Your task to perform on an android device: What's the weather going to be tomorrow? Image 0: 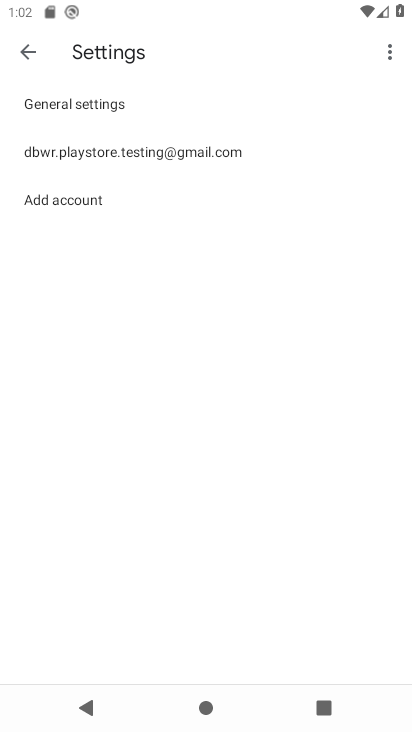
Step 0: press home button
Your task to perform on an android device: What's the weather going to be tomorrow? Image 1: 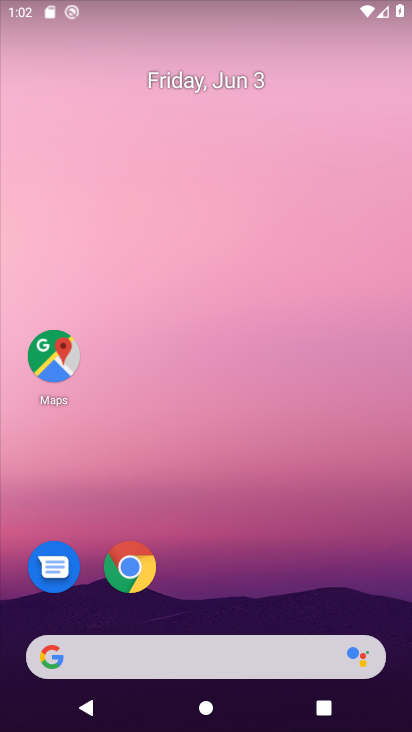
Step 1: drag from (233, 609) to (219, 245)
Your task to perform on an android device: What's the weather going to be tomorrow? Image 2: 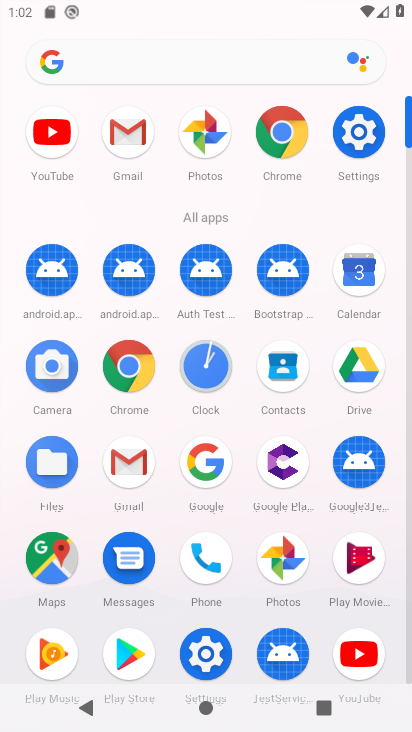
Step 2: click (273, 127)
Your task to perform on an android device: What's the weather going to be tomorrow? Image 3: 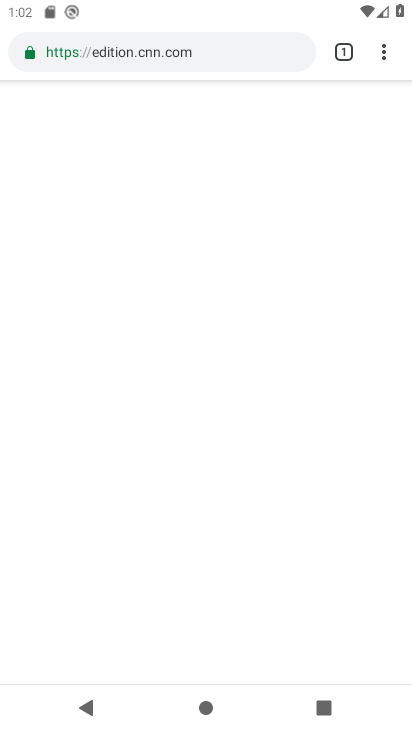
Step 3: click (389, 50)
Your task to perform on an android device: What's the weather going to be tomorrow? Image 4: 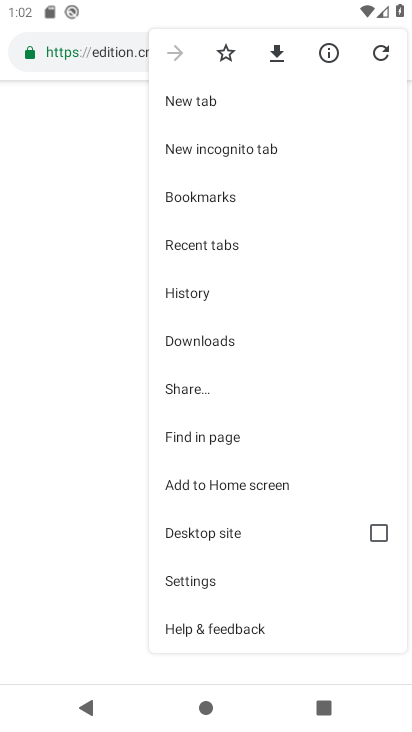
Step 4: click (191, 96)
Your task to perform on an android device: What's the weather going to be tomorrow? Image 5: 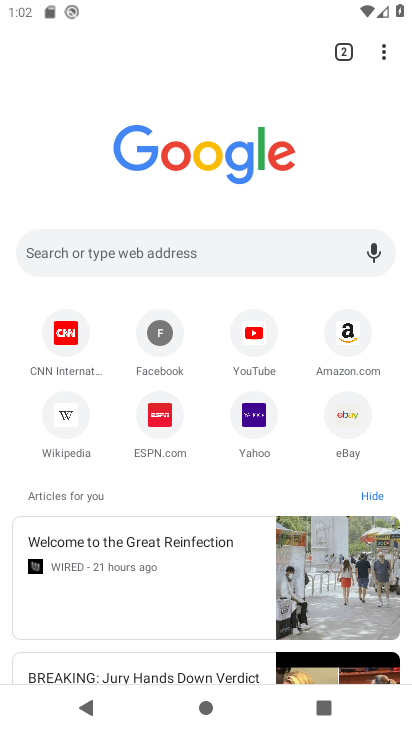
Step 5: click (95, 244)
Your task to perform on an android device: What's the weather going to be tomorrow? Image 6: 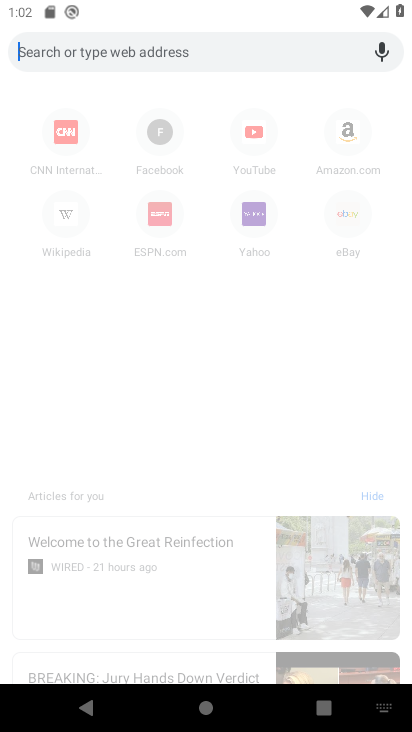
Step 6: type "What's the weather going to be tomorrow?"
Your task to perform on an android device: What's the weather going to be tomorrow? Image 7: 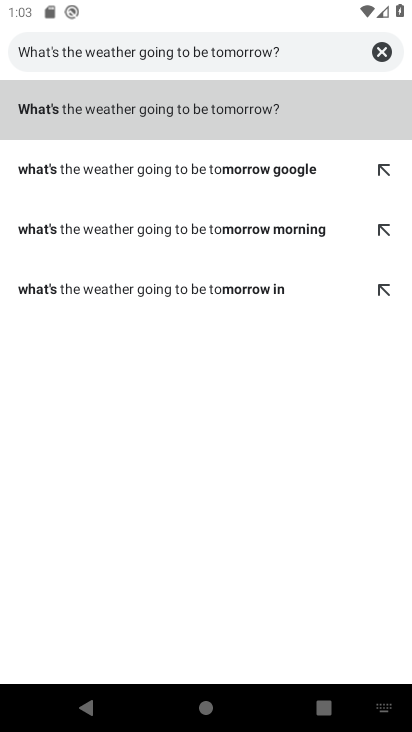
Step 7: click (277, 103)
Your task to perform on an android device: What's the weather going to be tomorrow? Image 8: 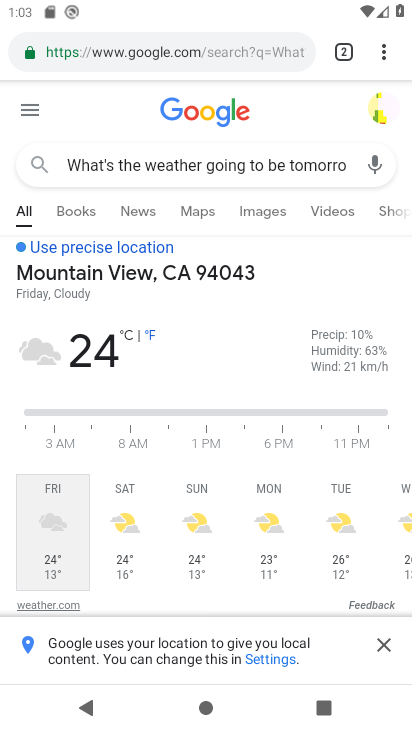
Step 8: task complete